Your task to perform on an android device: Open the web browser Image 0: 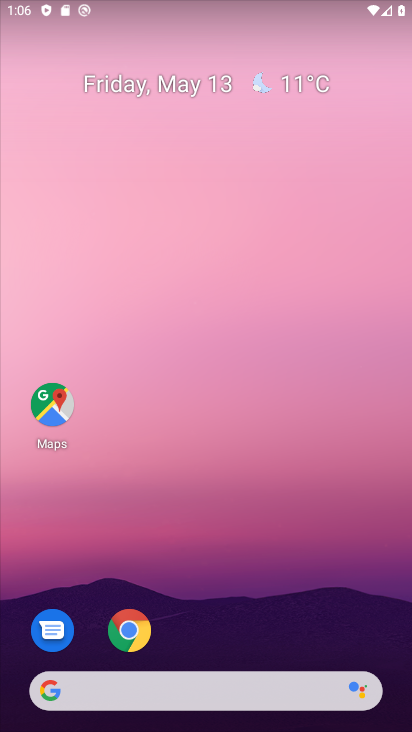
Step 0: drag from (214, 641) to (339, 22)
Your task to perform on an android device: Open the web browser Image 1: 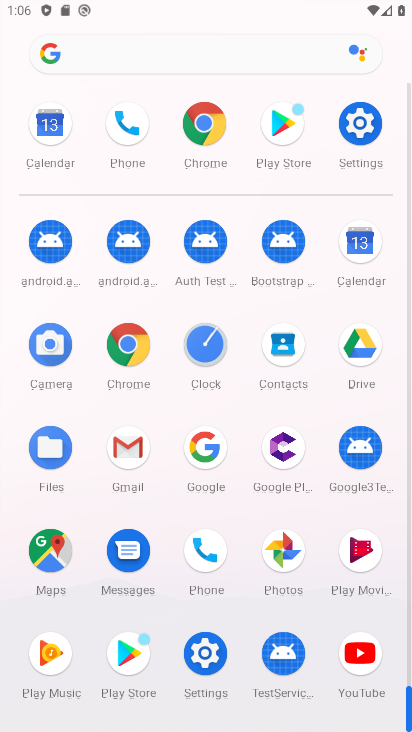
Step 1: click (115, 353)
Your task to perform on an android device: Open the web browser Image 2: 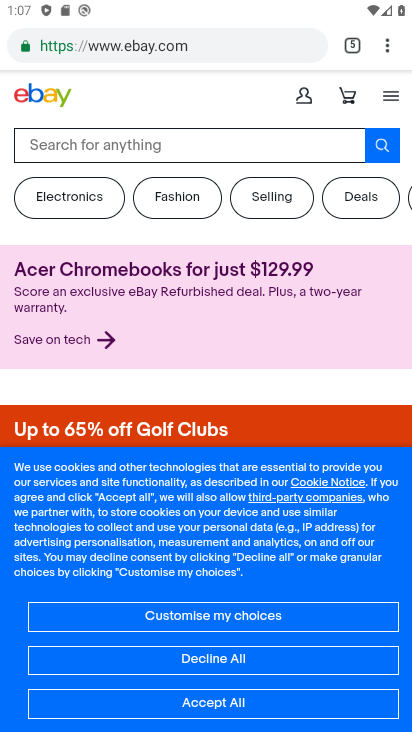
Step 2: task complete